Your task to perform on an android device: turn on translation in the chrome app Image 0: 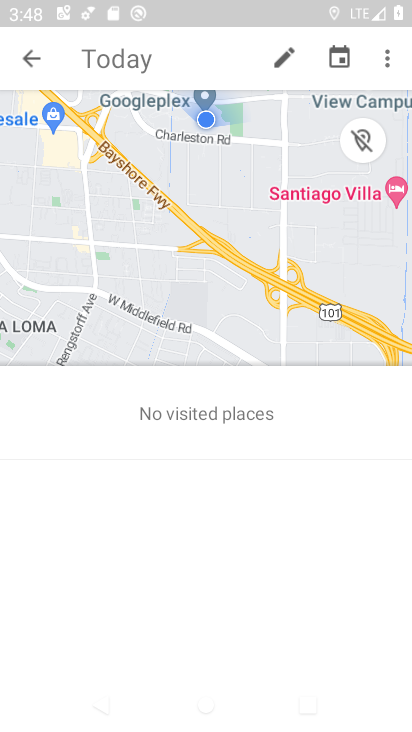
Step 0: press home button
Your task to perform on an android device: turn on translation in the chrome app Image 1: 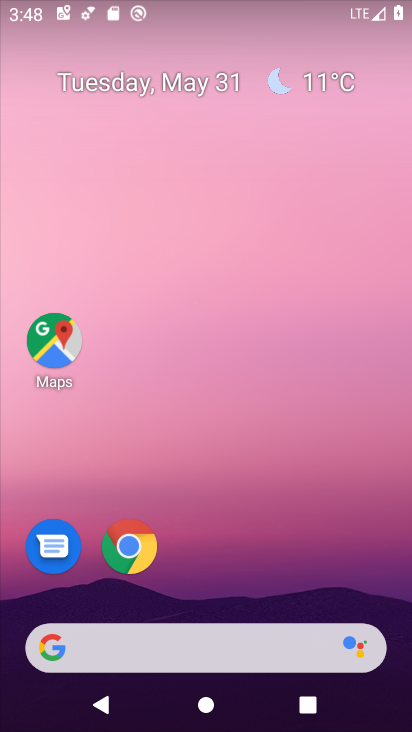
Step 1: click (141, 529)
Your task to perform on an android device: turn on translation in the chrome app Image 2: 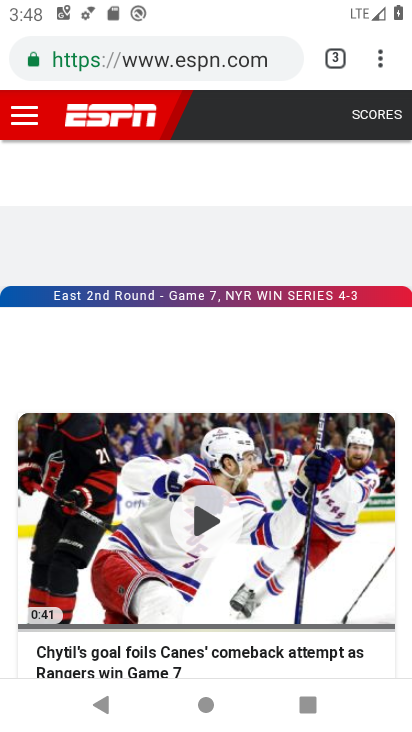
Step 2: click (329, 47)
Your task to perform on an android device: turn on translation in the chrome app Image 3: 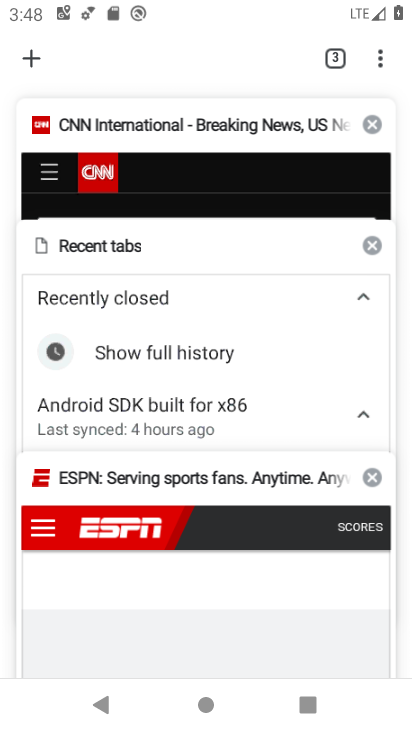
Step 3: click (378, 56)
Your task to perform on an android device: turn on translation in the chrome app Image 4: 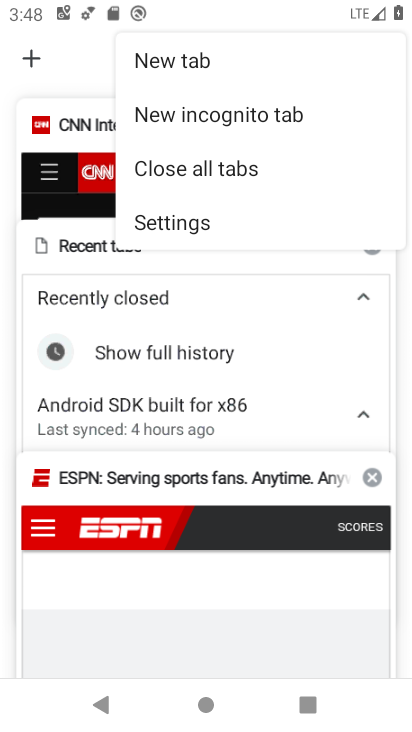
Step 4: click (69, 56)
Your task to perform on an android device: turn on translation in the chrome app Image 5: 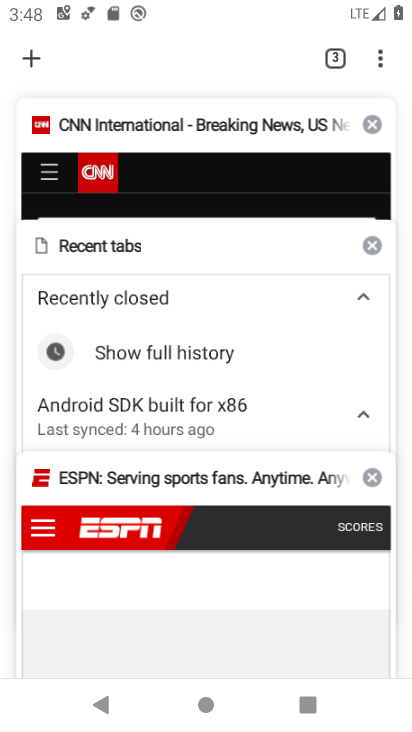
Step 5: click (77, 117)
Your task to perform on an android device: turn on translation in the chrome app Image 6: 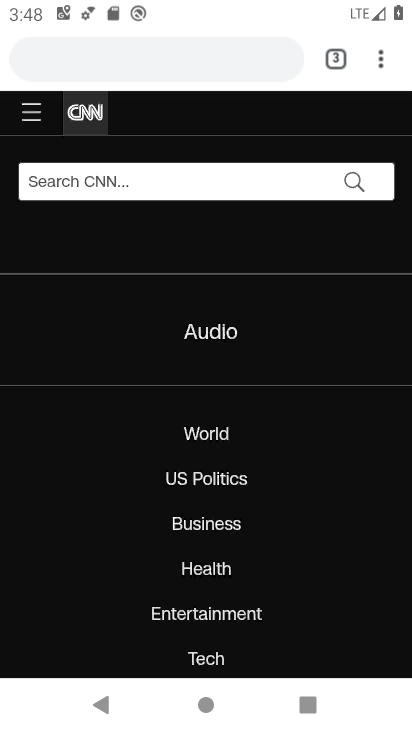
Step 6: click (377, 56)
Your task to perform on an android device: turn on translation in the chrome app Image 7: 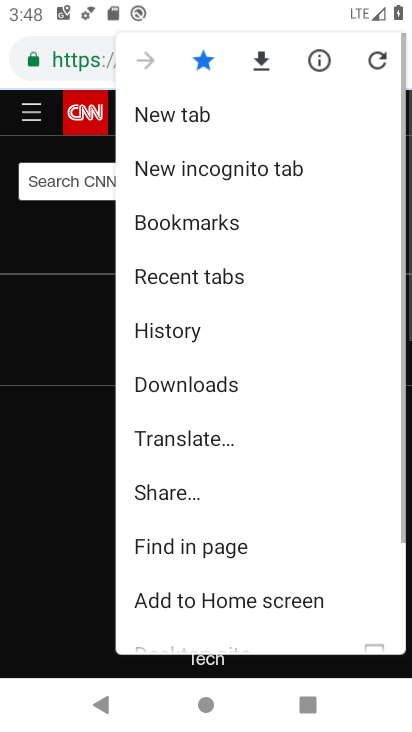
Step 7: drag from (252, 538) to (246, 47)
Your task to perform on an android device: turn on translation in the chrome app Image 8: 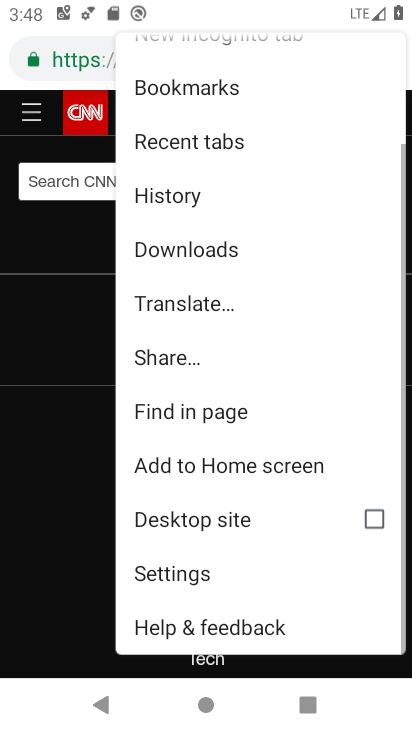
Step 8: click (225, 568)
Your task to perform on an android device: turn on translation in the chrome app Image 9: 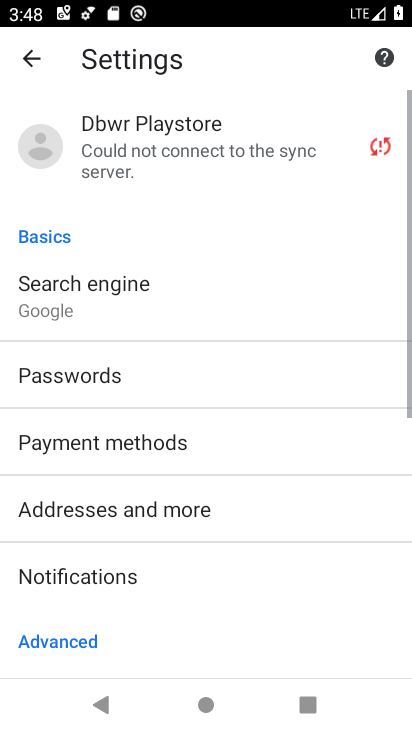
Step 9: drag from (176, 560) to (177, 111)
Your task to perform on an android device: turn on translation in the chrome app Image 10: 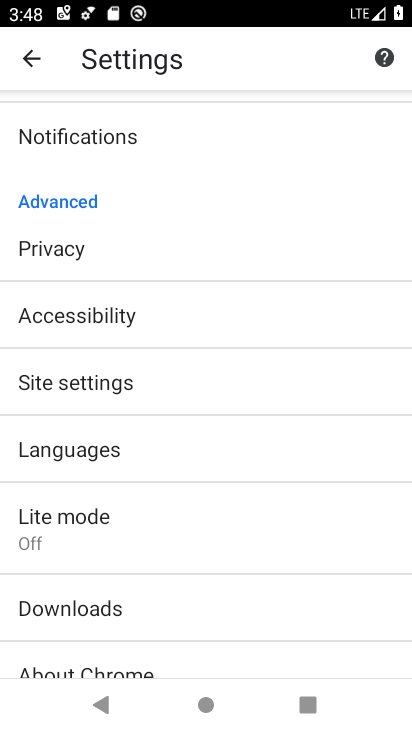
Step 10: click (125, 457)
Your task to perform on an android device: turn on translation in the chrome app Image 11: 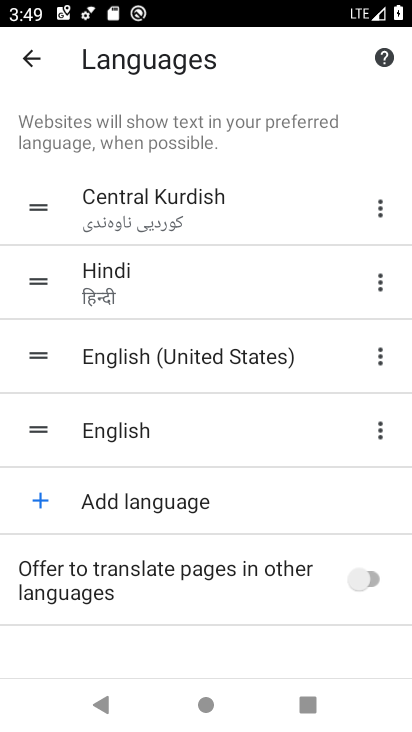
Step 11: click (371, 574)
Your task to perform on an android device: turn on translation in the chrome app Image 12: 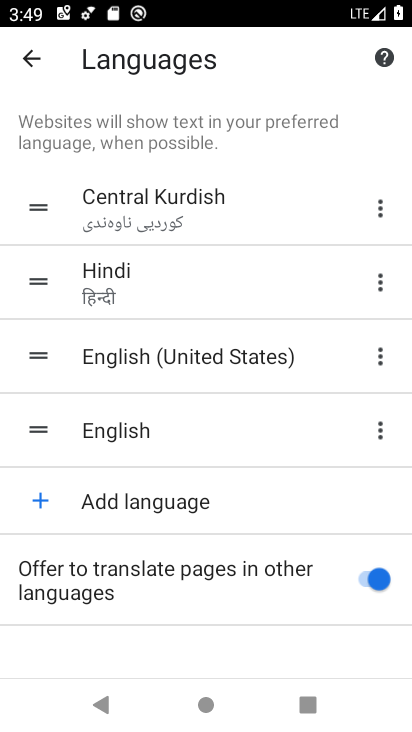
Step 12: task complete